Your task to perform on an android device: Open eBay Image 0: 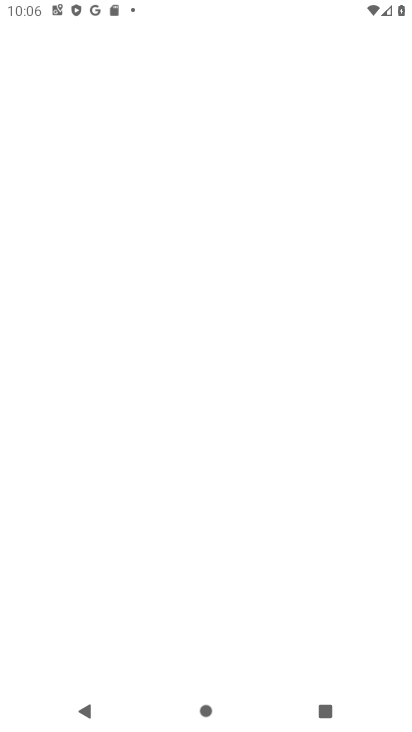
Step 0: press home button
Your task to perform on an android device: Open eBay Image 1: 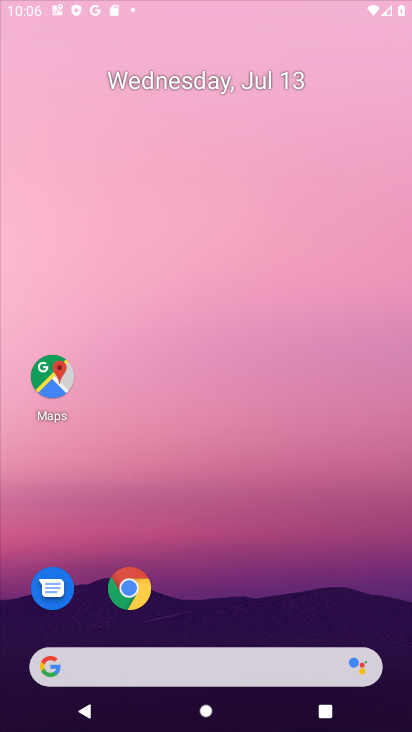
Step 1: drag from (241, 599) to (230, 77)
Your task to perform on an android device: Open eBay Image 2: 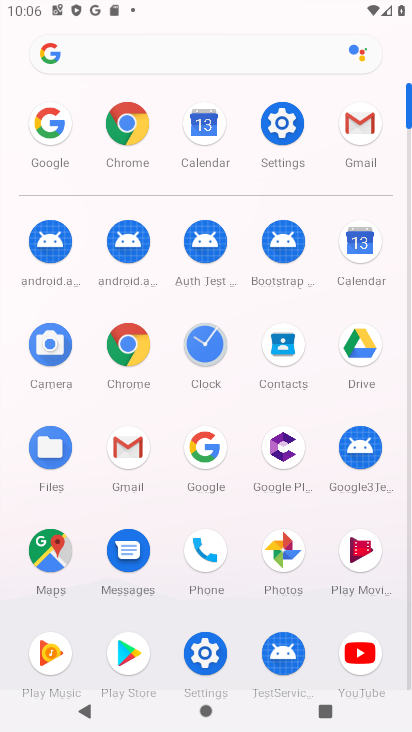
Step 2: click (210, 449)
Your task to perform on an android device: Open eBay Image 3: 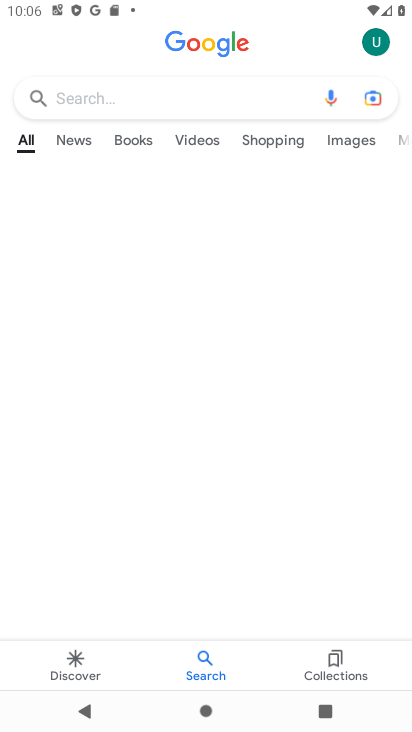
Step 3: click (115, 104)
Your task to perform on an android device: Open eBay Image 4: 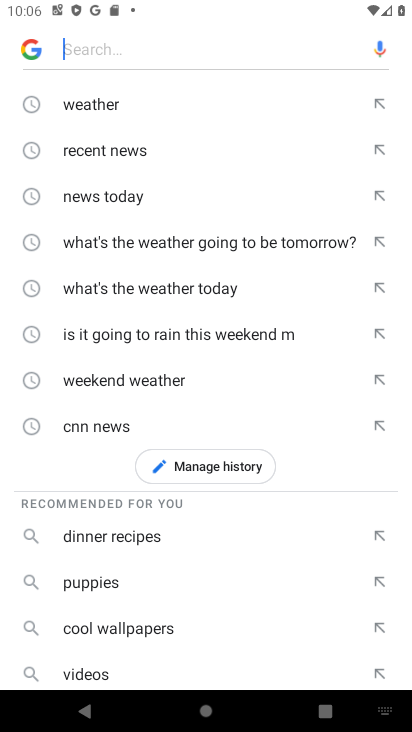
Step 4: type "ebay"
Your task to perform on an android device: Open eBay Image 5: 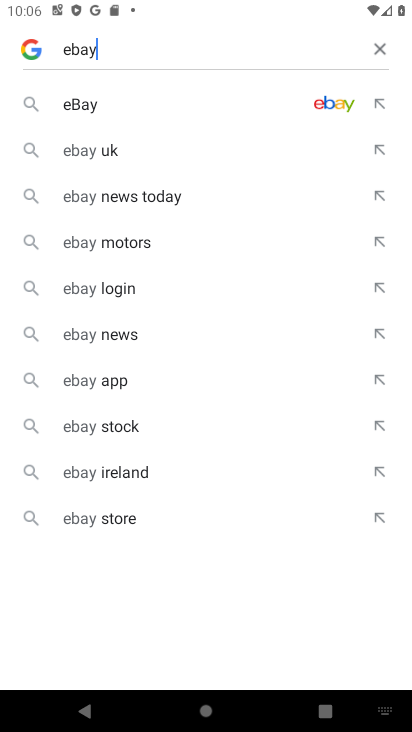
Step 5: click (126, 100)
Your task to perform on an android device: Open eBay Image 6: 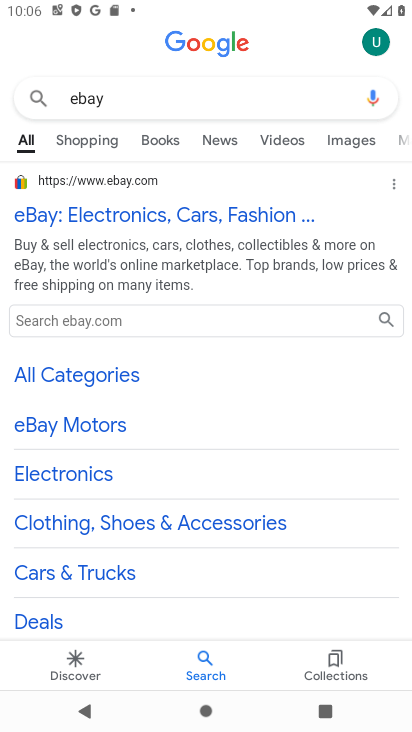
Step 6: task complete